Your task to perform on an android device: What is the recent news? Image 0: 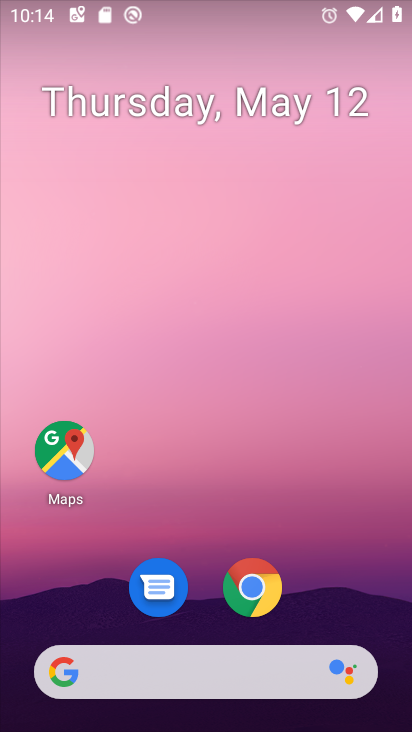
Step 0: drag from (376, 640) to (214, 46)
Your task to perform on an android device: What is the recent news? Image 1: 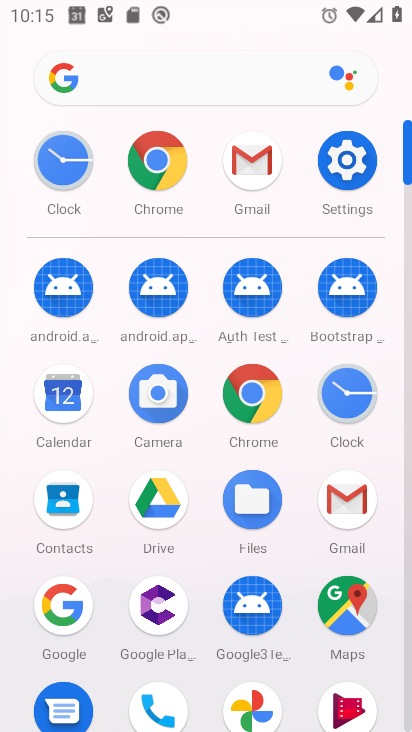
Step 1: click (259, 405)
Your task to perform on an android device: What is the recent news? Image 2: 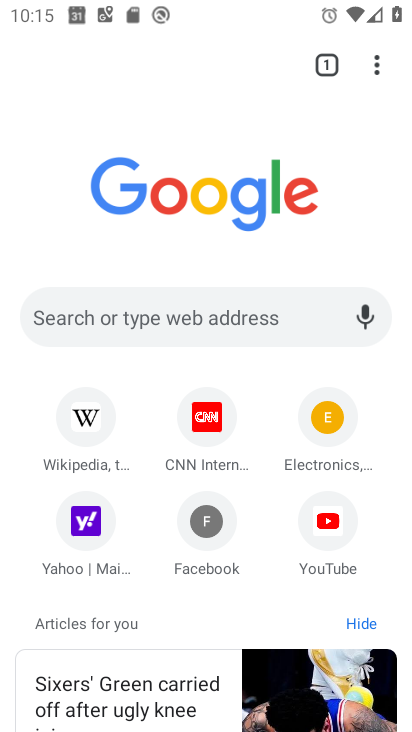
Step 2: click (135, 710)
Your task to perform on an android device: What is the recent news? Image 3: 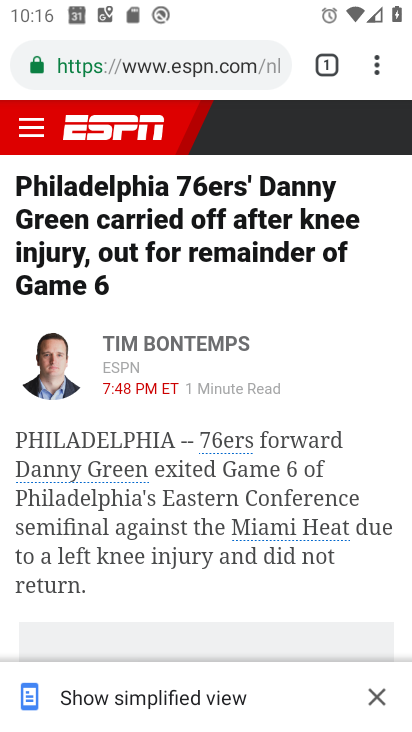
Step 3: task complete